Your task to perform on an android device: install app "Pandora - Music & Podcasts" Image 0: 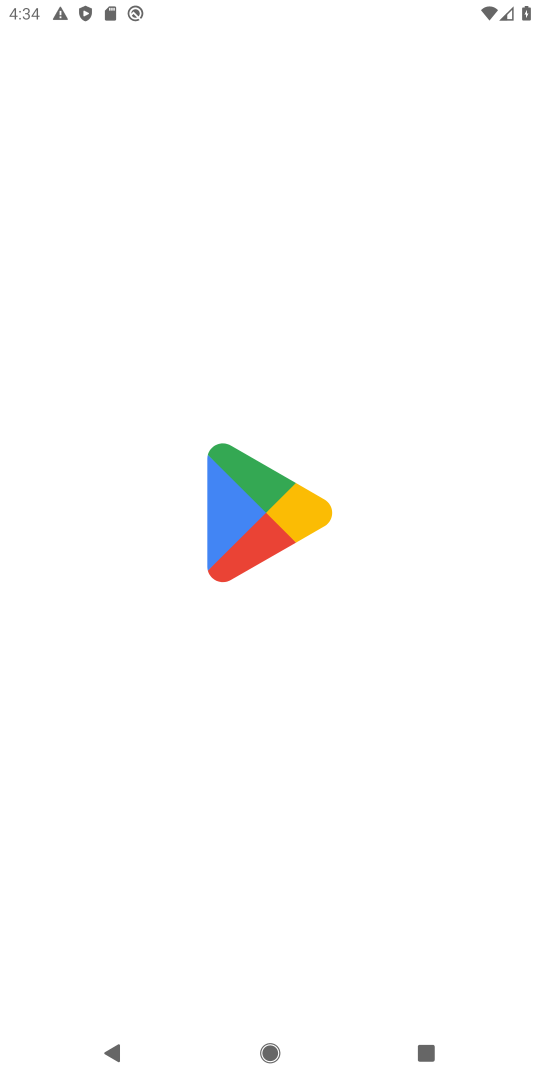
Step 0: press home button
Your task to perform on an android device: install app "Pandora - Music & Podcasts" Image 1: 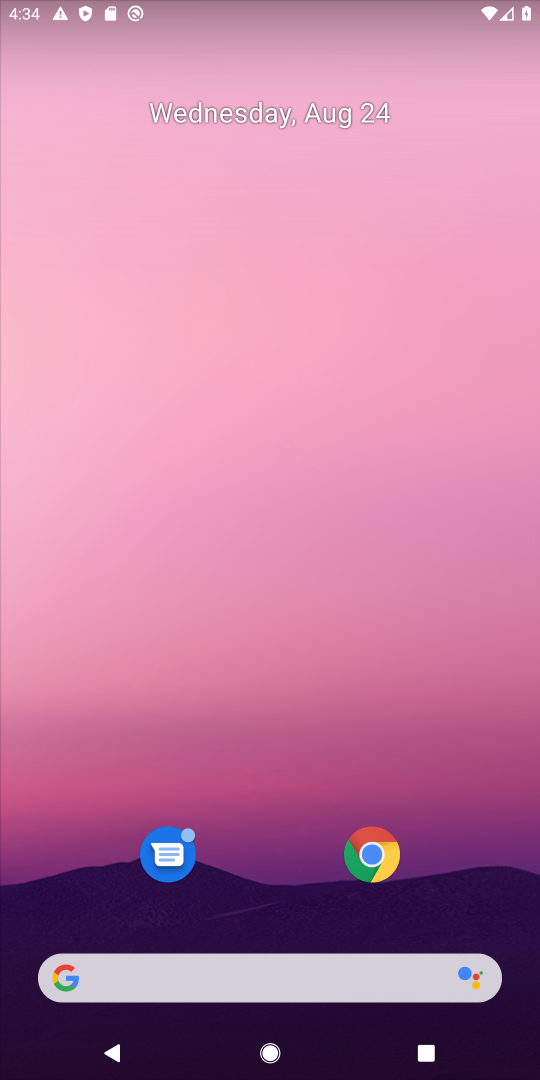
Step 1: drag from (268, 904) to (329, 100)
Your task to perform on an android device: install app "Pandora - Music & Podcasts" Image 2: 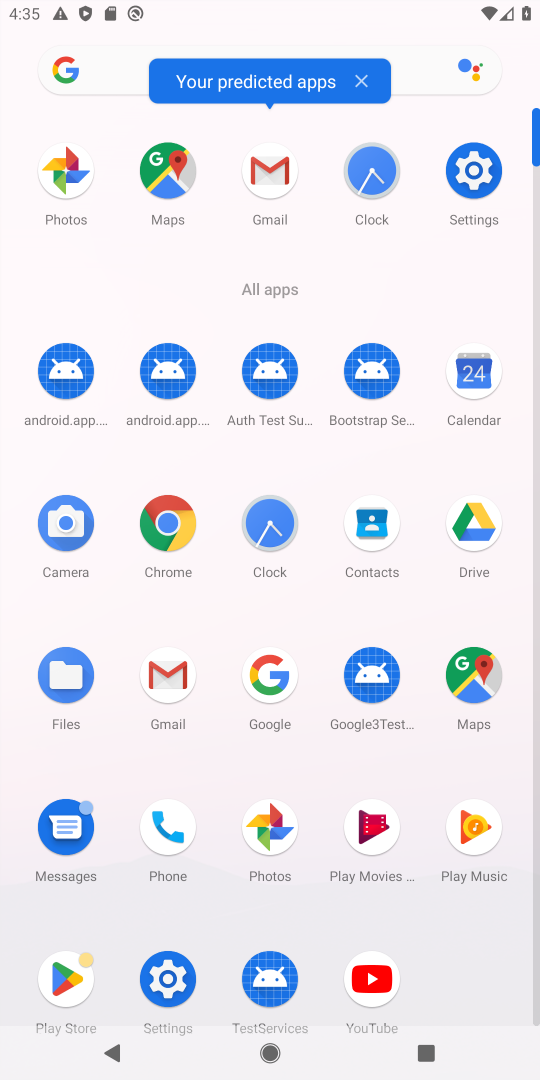
Step 2: click (66, 987)
Your task to perform on an android device: install app "Pandora - Music & Podcasts" Image 3: 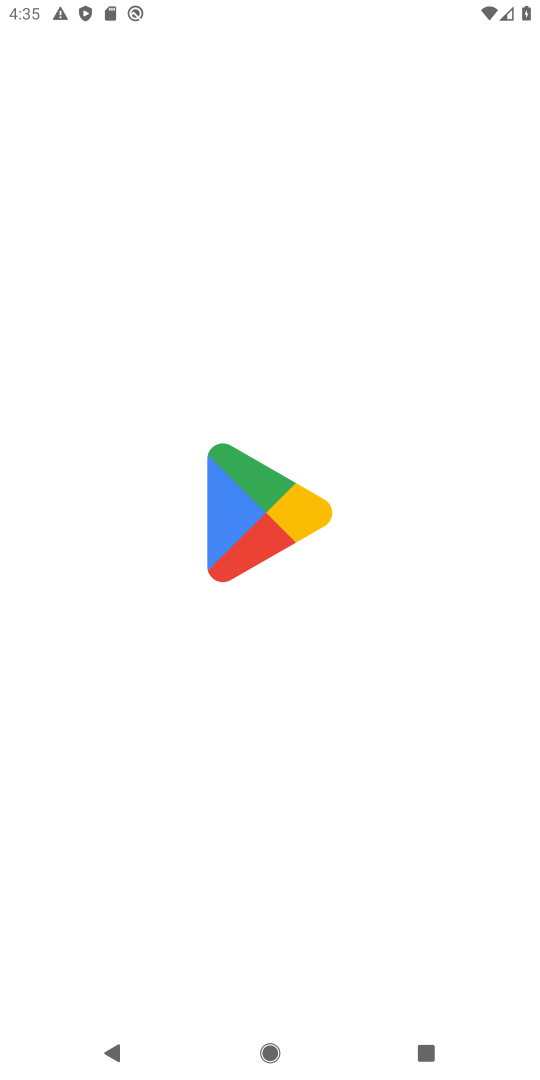
Step 3: task complete